Your task to perform on an android device: change alarm snooze length Image 0: 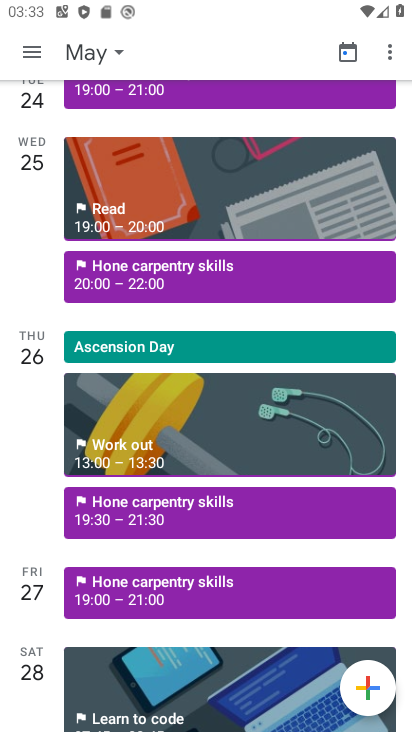
Step 0: press home button
Your task to perform on an android device: change alarm snooze length Image 1: 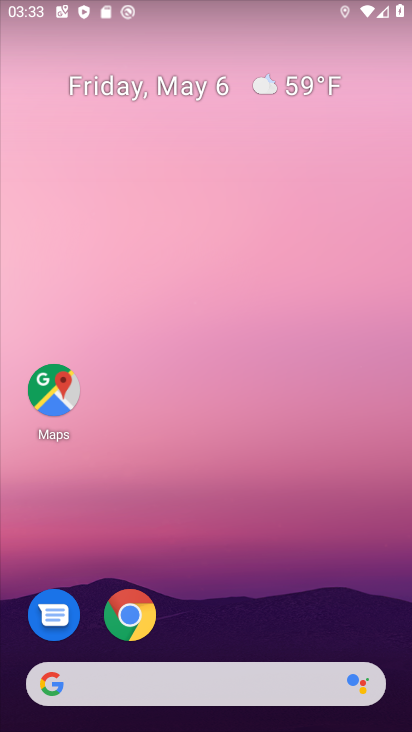
Step 1: drag from (256, 625) to (76, 1)
Your task to perform on an android device: change alarm snooze length Image 2: 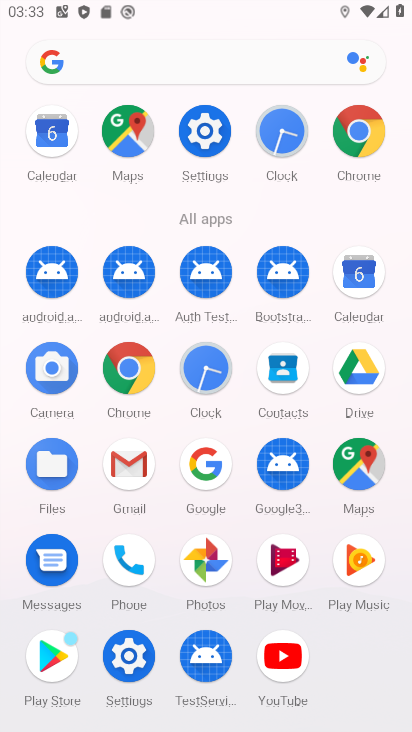
Step 2: click (273, 141)
Your task to perform on an android device: change alarm snooze length Image 3: 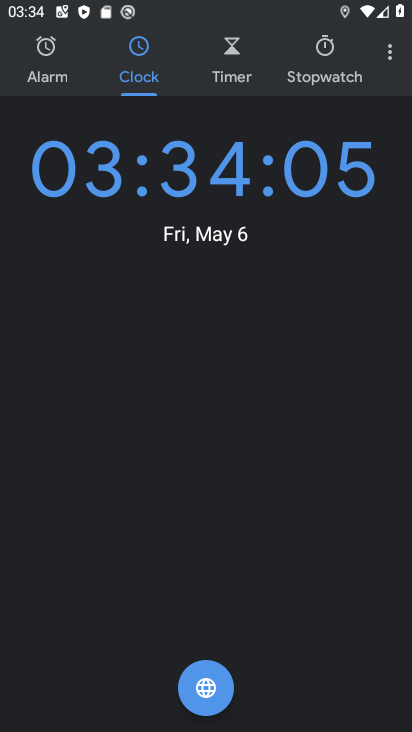
Step 3: click (389, 45)
Your task to perform on an android device: change alarm snooze length Image 4: 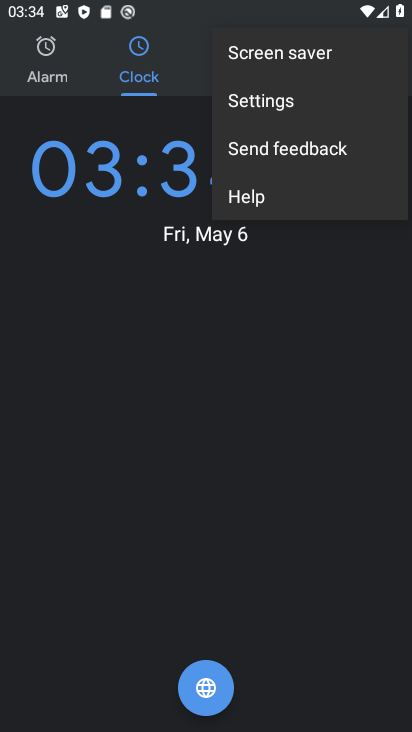
Step 4: click (270, 105)
Your task to perform on an android device: change alarm snooze length Image 5: 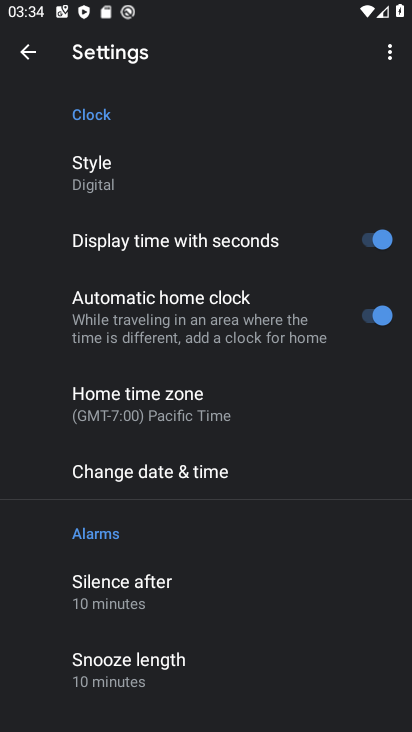
Step 5: click (114, 656)
Your task to perform on an android device: change alarm snooze length Image 6: 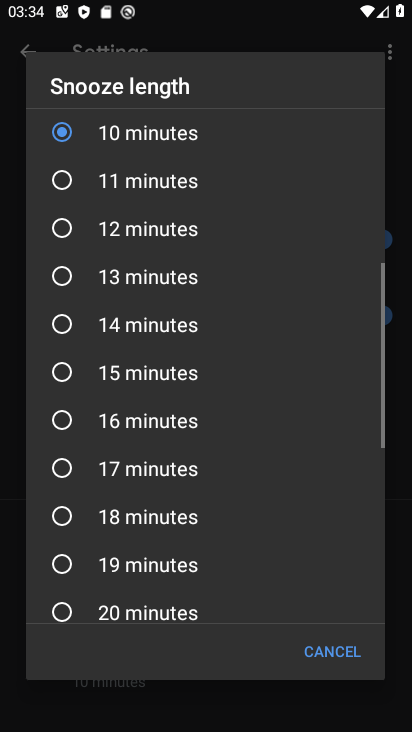
Step 6: click (60, 518)
Your task to perform on an android device: change alarm snooze length Image 7: 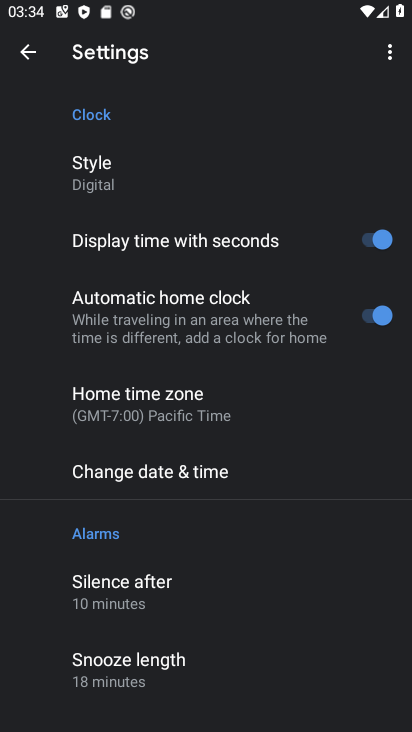
Step 7: task complete